Your task to perform on an android device: Open display settings Image 0: 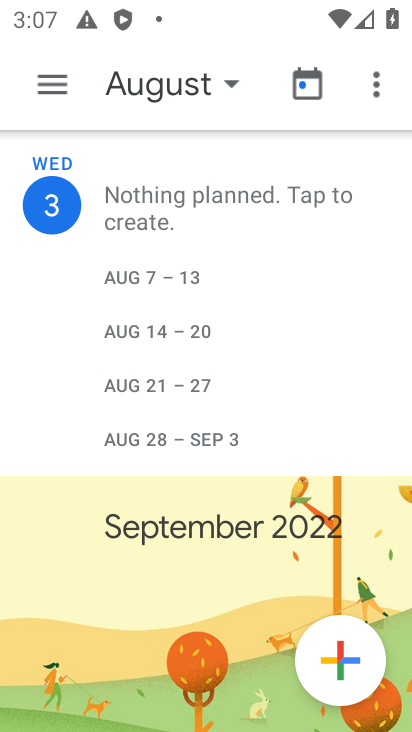
Step 0: press home button
Your task to perform on an android device: Open display settings Image 1: 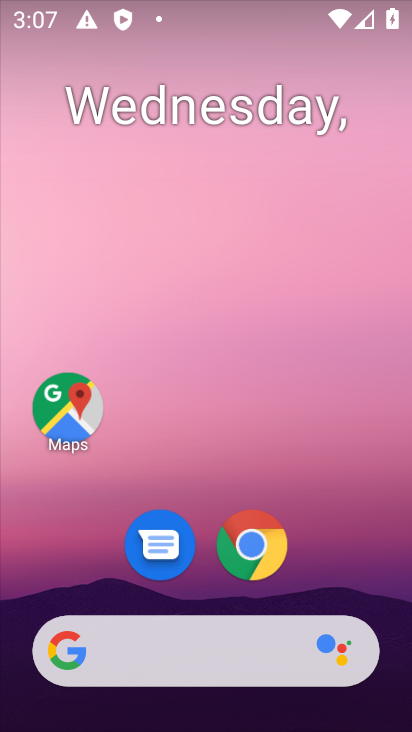
Step 1: drag from (209, 655) to (205, 86)
Your task to perform on an android device: Open display settings Image 2: 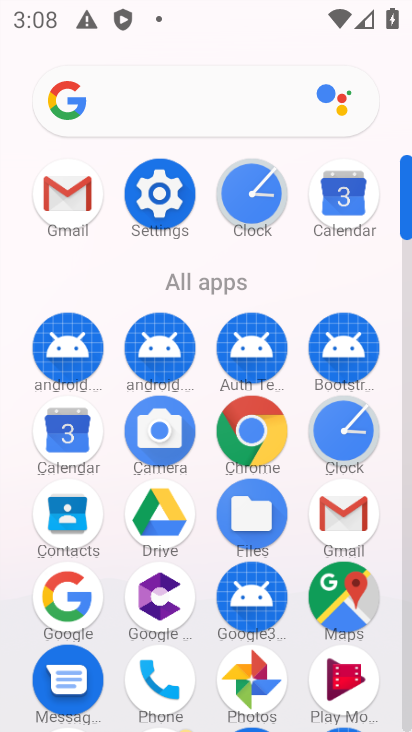
Step 2: click (172, 206)
Your task to perform on an android device: Open display settings Image 3: 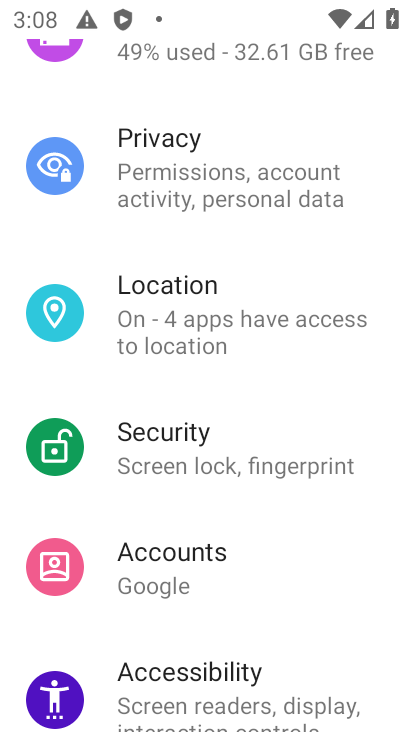
Step 3: drag from (170, 193) to (192, 572)
Your task to perform on an android device: Open display settings Image 4: 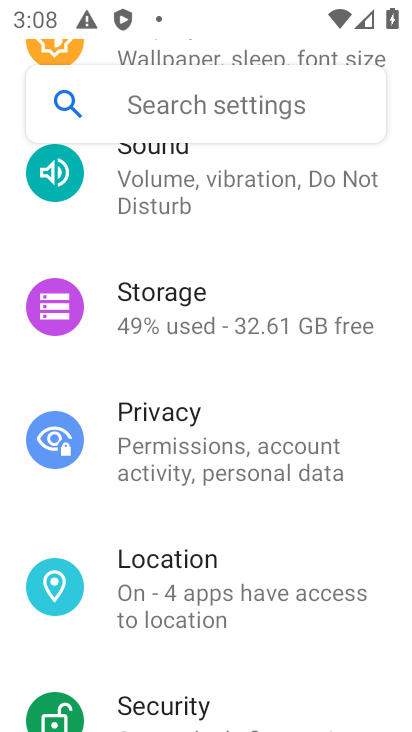
Step 4: drag from (141, 287) to (139, 632)
Your task to perform on an android device: Open display settings Image 5: 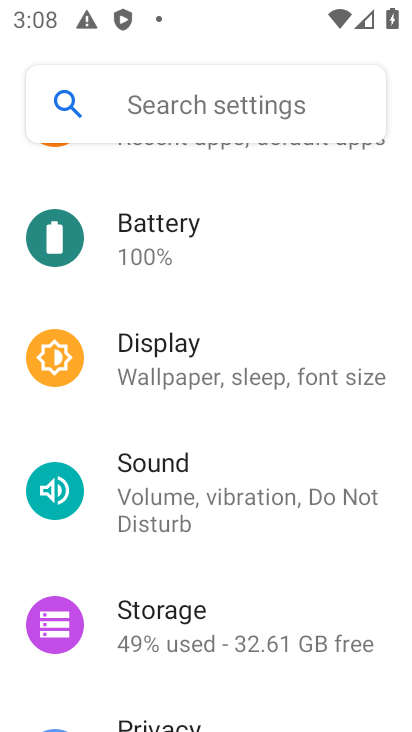
Step 5: click (136, 385)
Your task to perform on an android device: Open display settings Image 6: 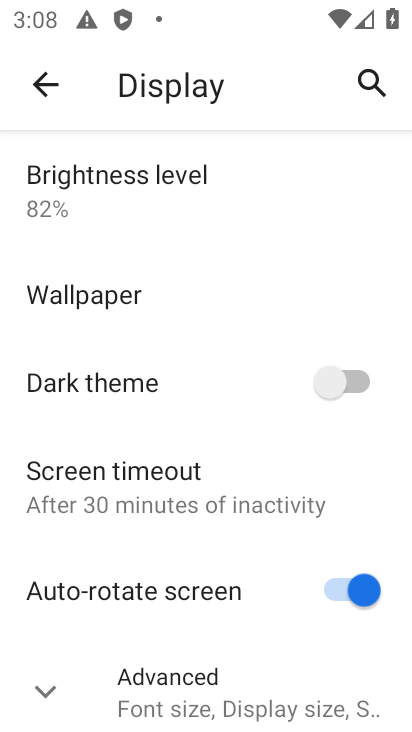
Step 6: task complete